Your task to perform on an android device: Go to eBay Image 0: 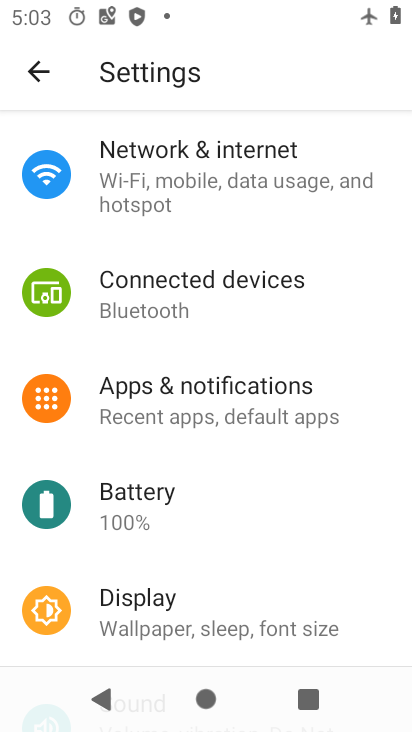
Step 0: press home button
Your task to perform on an android device: Go to eBay Image 1: 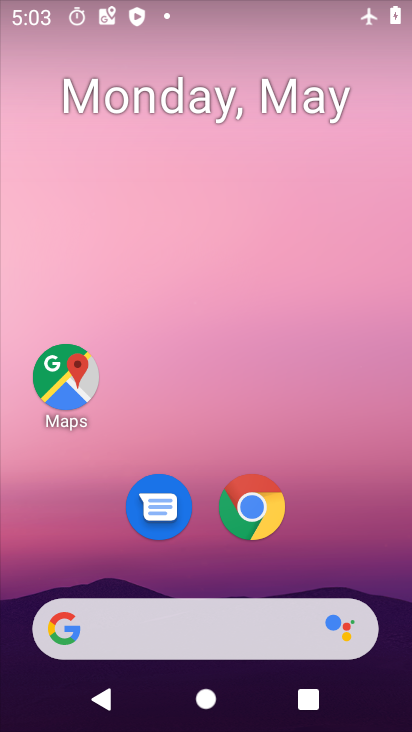
Step 1: click (253, 524)
Your task to perform on an android device: Go to eBay Image 2: 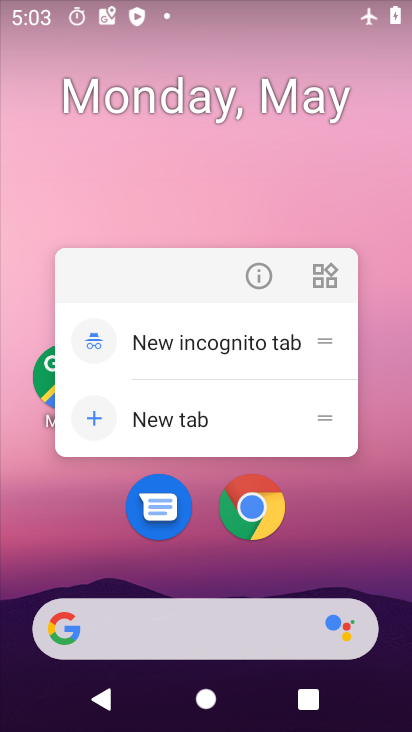
Step 2: click (269, 497)
Your task to perform on an android device: Go to eBay Image 3: 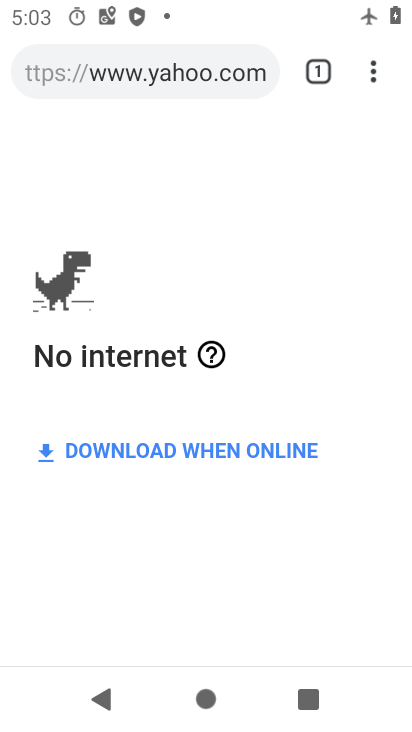
Step 3: click (161, 92)
Your task to perform on an android device: Go to eBay Image 4: 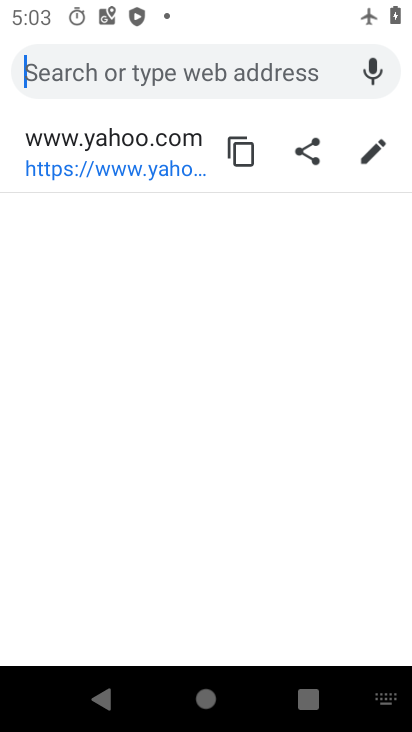
Step 4: task complete